Your task to perform on an android device: turn on sleep mode Image 0: 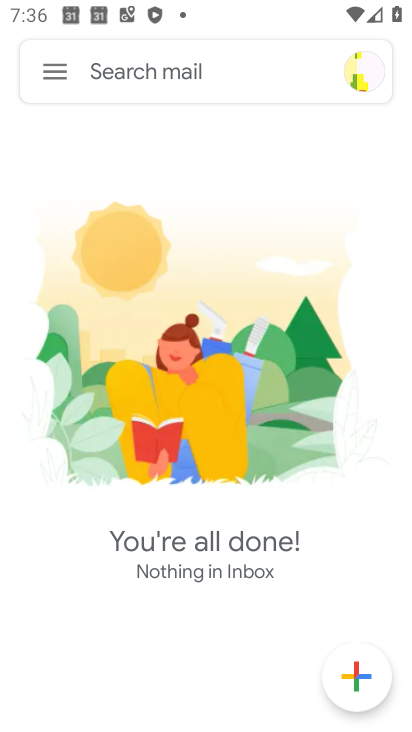
Step 0: press home button
Your task to perform on an android device: turn on sleep mode Image 1: 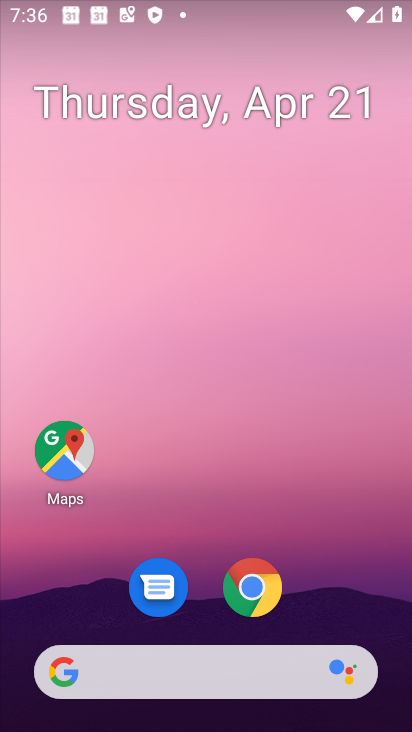
Step 1: drag from (377, 575) to (335, 146)
Your task to perform on an android device: turn on sleep mode Image 2: 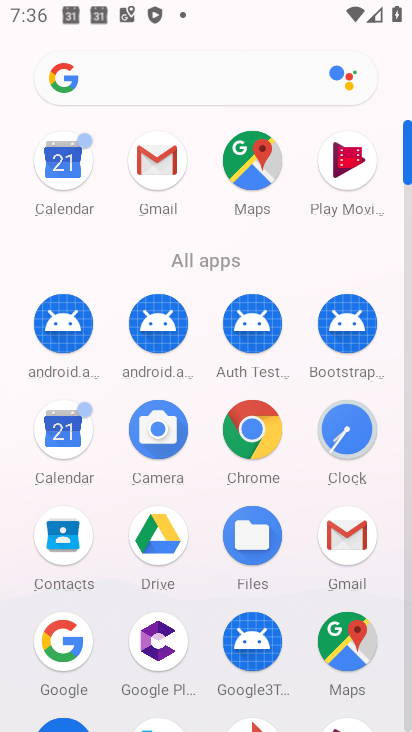
Step 2: drag from (406, 135) to (411, 68)
Your task to perform on an android device: turn on sleep mode Image 3: 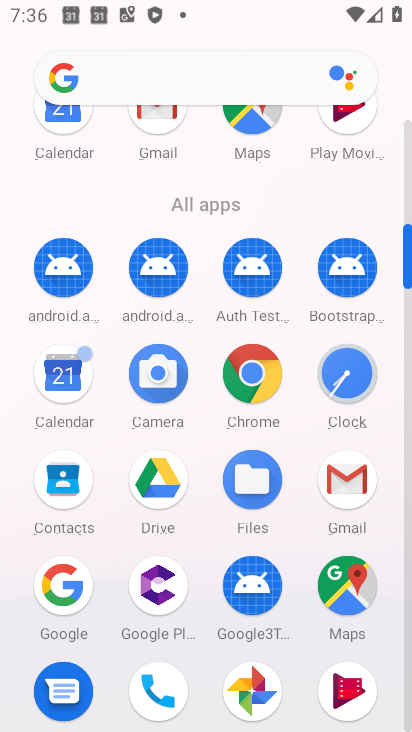
Step 3: drag from (409, 162) to (405, 51)
Your task to perform on an android device: turn on sleep mode Image 4: 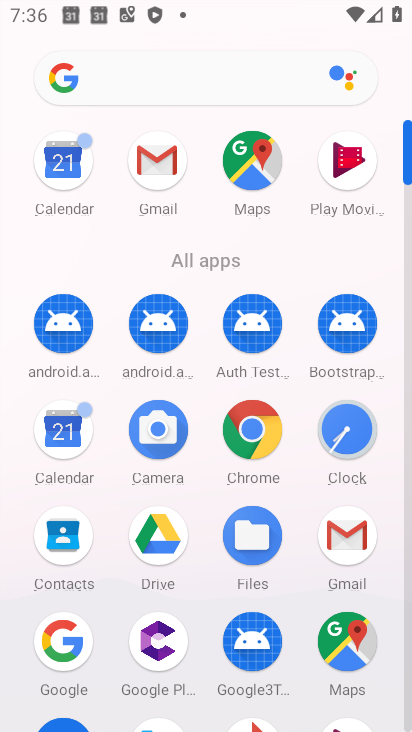
Step 4: drag from (409, 126) to (405, 63)
Your task to perform on an android device: turn on sleep mode Image 5: 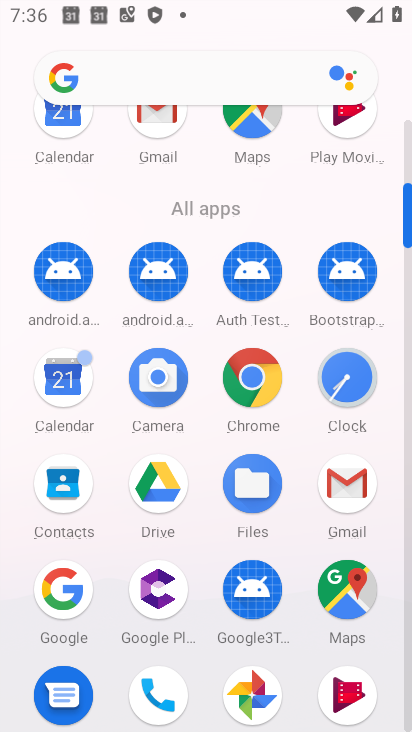
Step 5: drag from (407, 187) to (411, 89)
Your task to perform on an android device: turn on sleep mode Image 6: 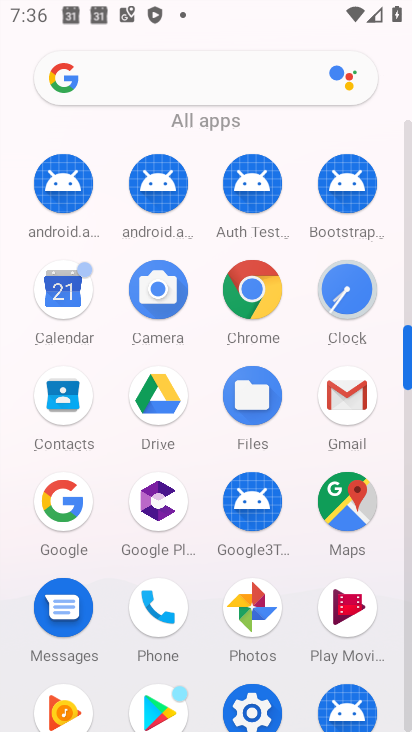
Step 6: click (251, 707)
Your task to perform on an android device: turn on sleep mode Image 7: 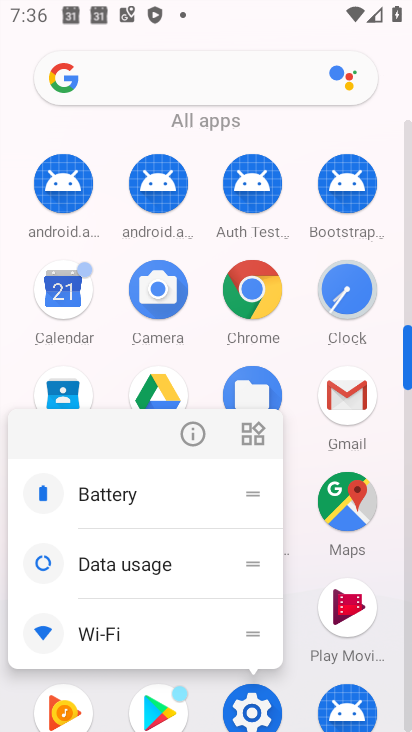
Step 7: click (254, 700)
Your task to perform on an android device: turn on sleep mode Image 8: 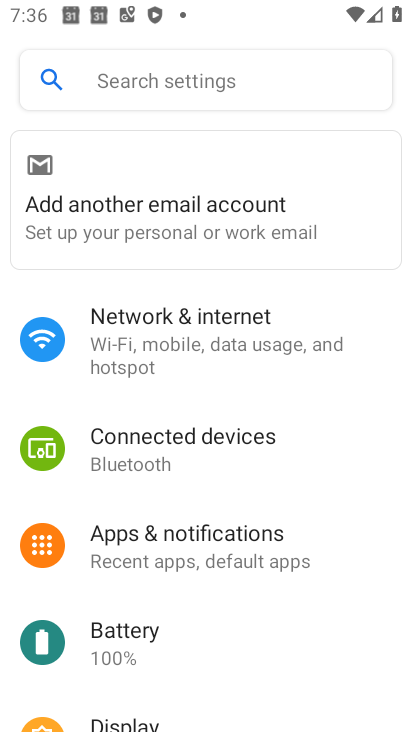
Step 8: click (123, 721)
Your task to perform on an android device: turn on sleep mode Image 9: 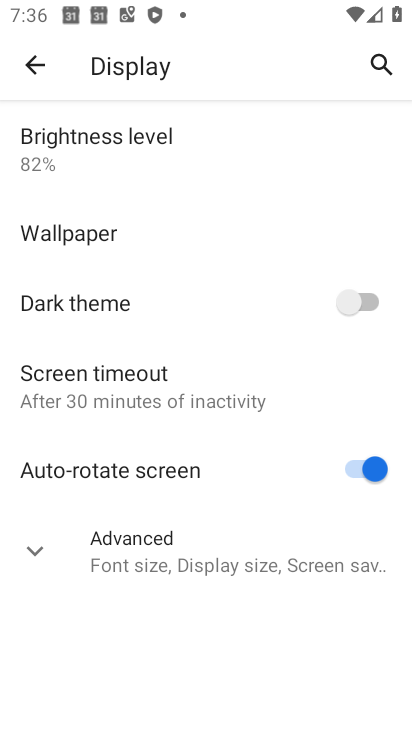
Step 9: click (70, 378)
Your task to perform on an android device: turn on sleep mode Image 10: 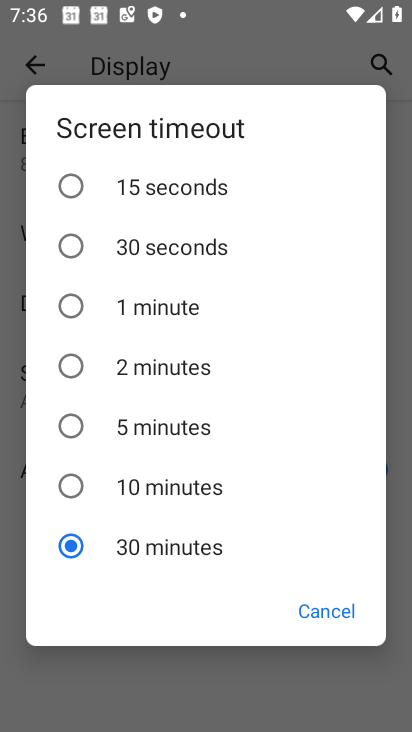
Step 10: task complete